Your task to perform on an android device: Open ESPN.com Image 0: 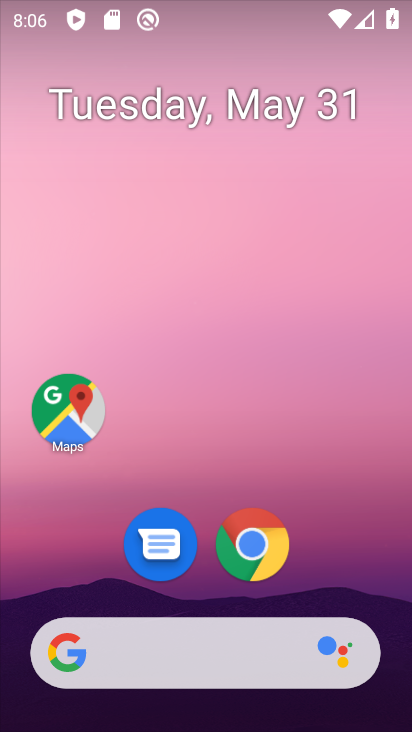
Step 0: click (230, 555)
Your task to perform on an android device: Open ESPN.com Image 1: 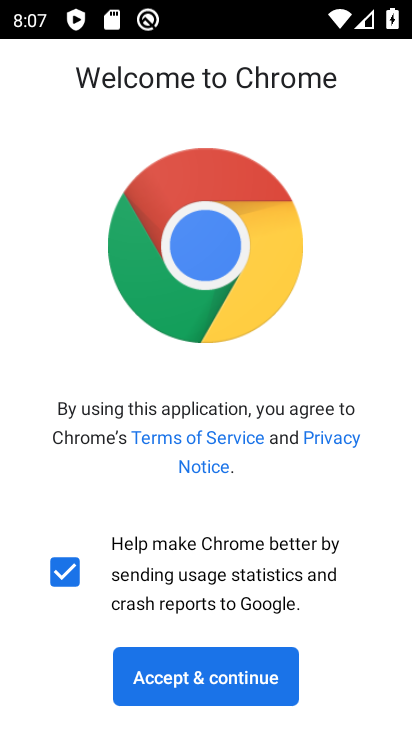
Step 1: click (244, 679)
Your task to perform on an android device: Open ESPN.com Image 2: 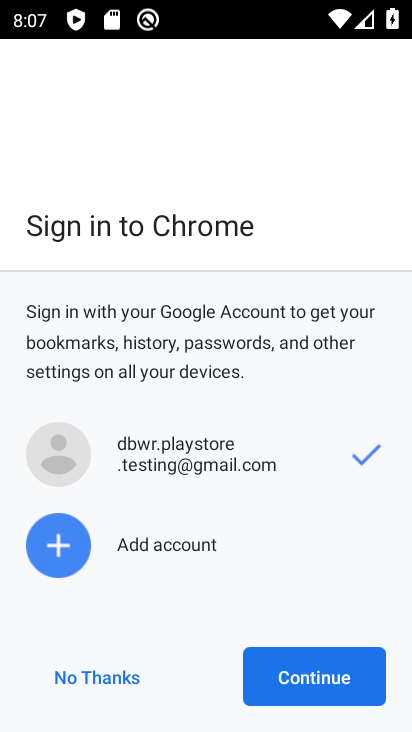
Step 2: click (258, 680)
Your task to perform on an android device: Open ESPN.com Image 3: 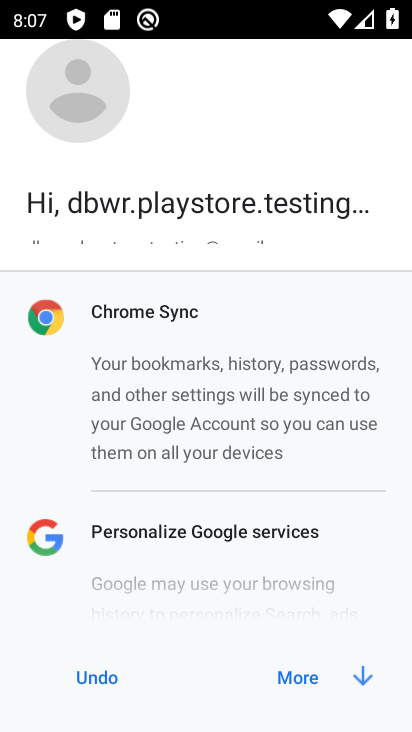
Step 3: click (316, 668)
Your task to perform on an android device: Open ESPN.com Image 4: 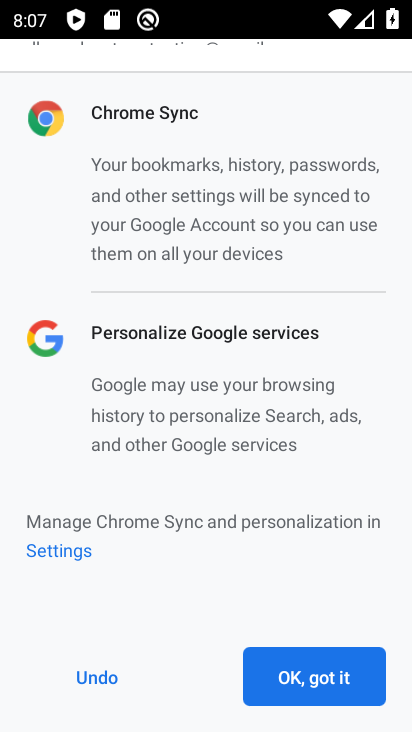
Step 4: click (316, 668)
Your task to perform on an android device: Open ESPN.com Image 5: 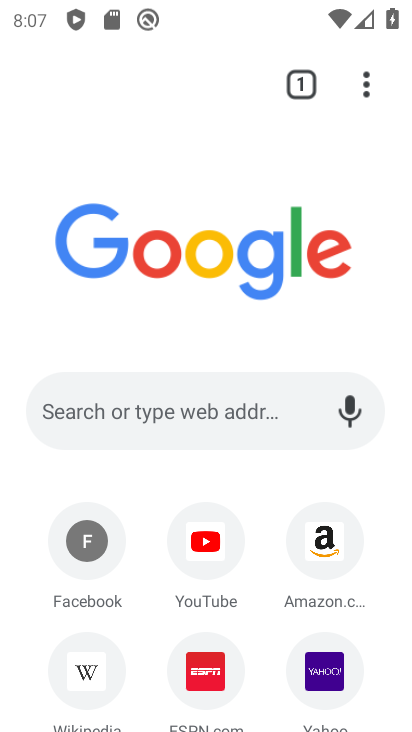
Step 5: click (208, 670)
Your task to perform on an android device: Open ESPN.com Image 6: 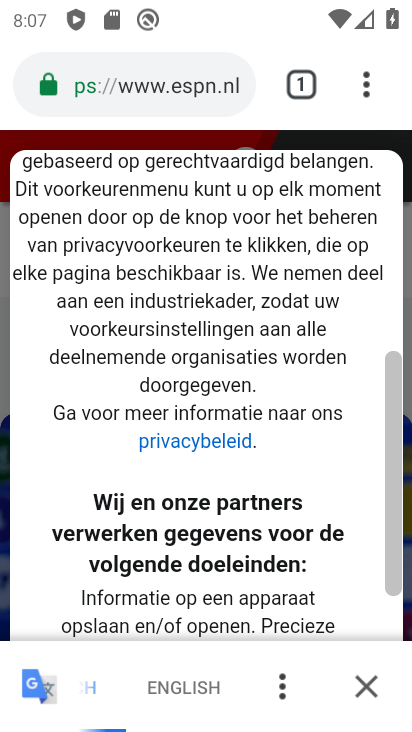
Step 6: task complete